Your task to perform on an android device: move a message to another label in the gmail app Image 0: 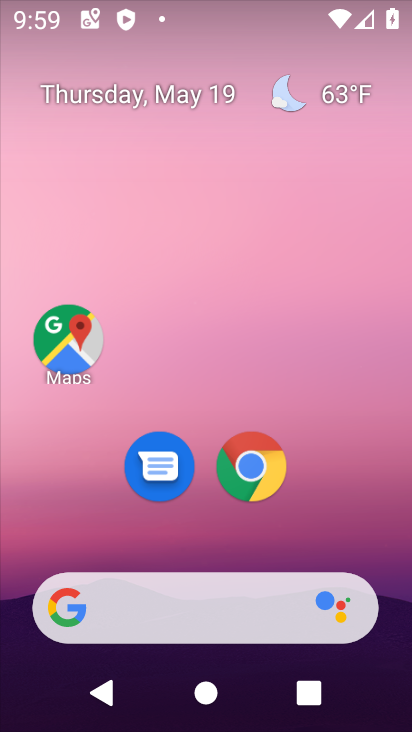
Step 0: drag from (386, 636) to (269, 34)
Your task to perform on an android device: move a message to another label in the gmail app Image 1: 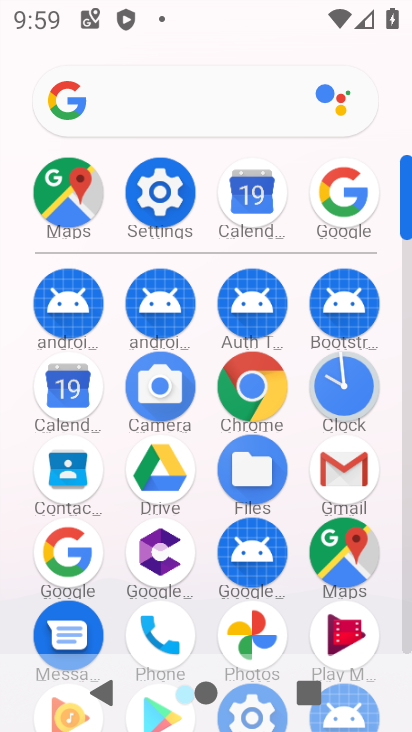
Step 1: click (335, 467)
Your task to perform on an android device: move a message to another label in the gmail app Image 2: 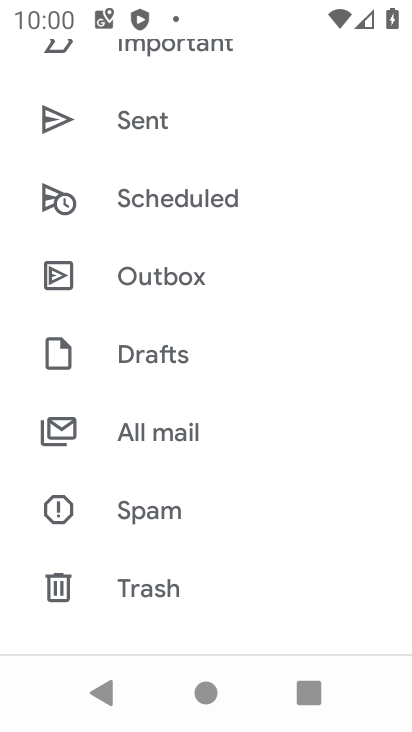
Step 2: press home button
Your task to perform on an android device: move a message to another label in the gmail app Image 3: 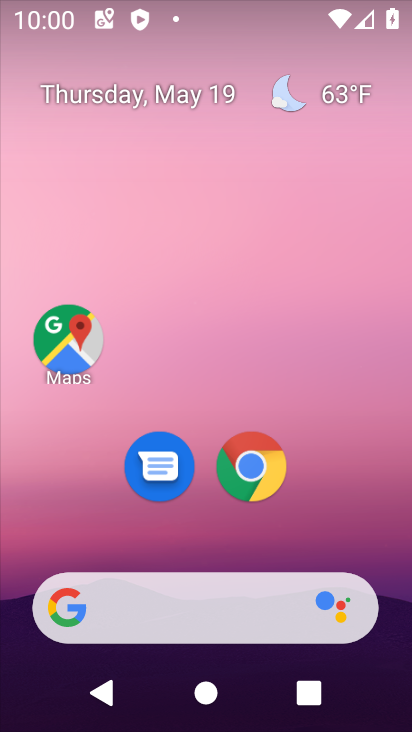
Step 3: drag from (387, 627) to (321, 13)
Your task to perform on an android device: move a message to another label in the gmail app Image 4: 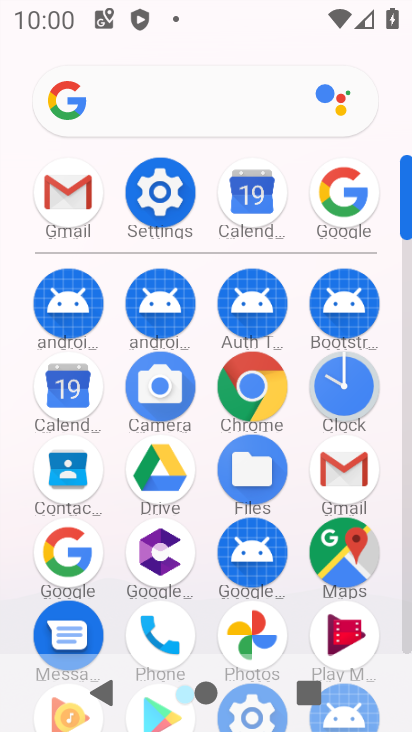
Step 4: click (67, 175)
Your task to perform on an android device: move a message to another label in the gmail app Image 5: 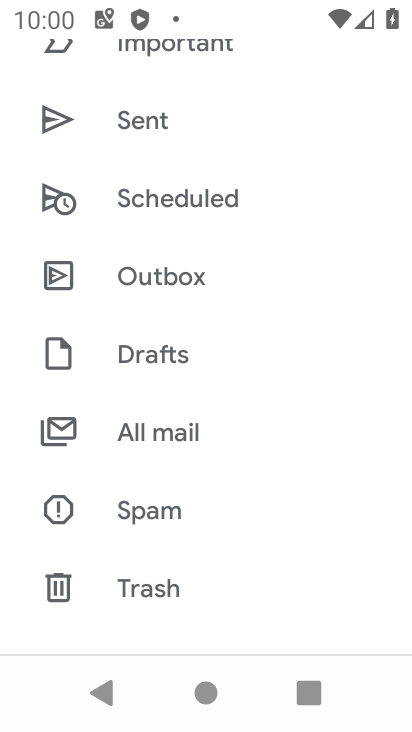
Step 5: task complete